Your task to perform on an android device: Go to privacy settings Image 0: 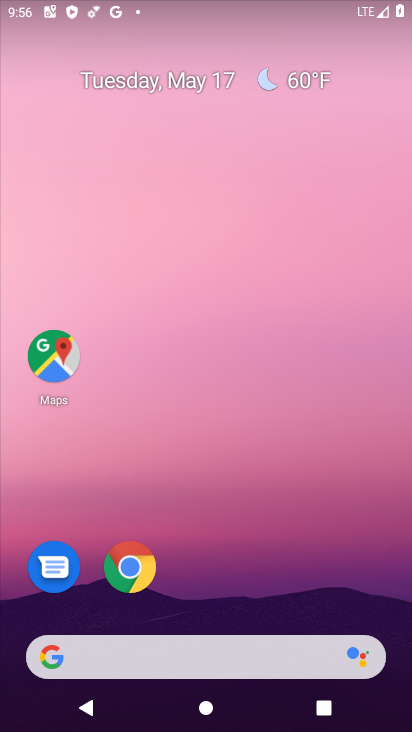
Step 0: drag from (384, 611) to (278, 107)
Your task to perform on an android device: Go to privacy settings Image 1: 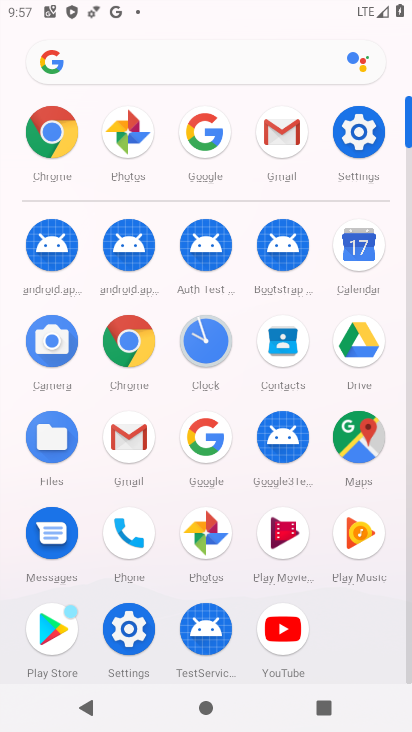
Step 1: click (355, 141)
Your task to perform on an android device: Go to privacy settings Image 2: 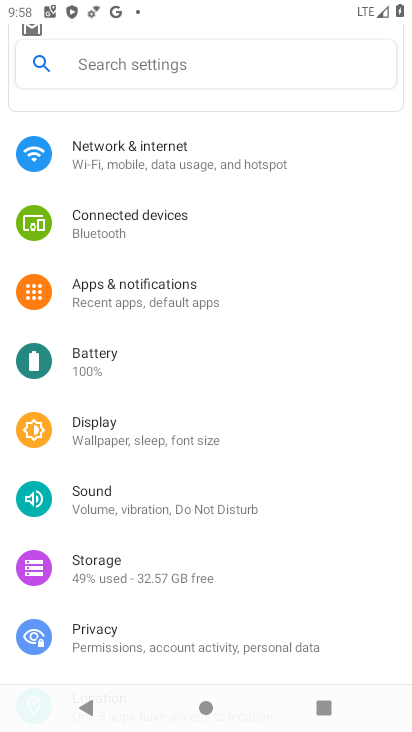
Step 2: click (91, 625)
Your task to perform on an android device: Go to privacy settings Image 3: 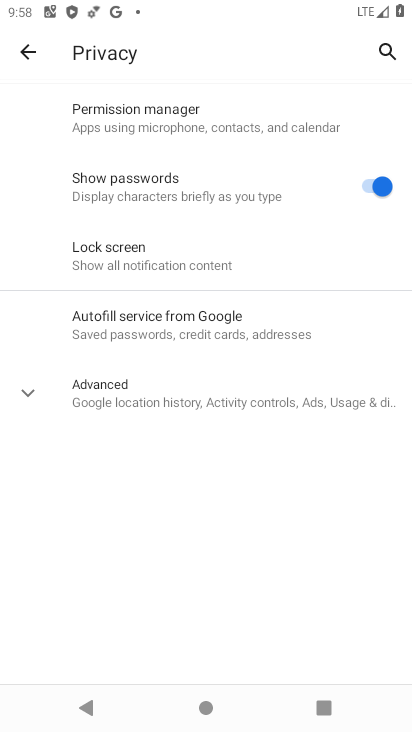
Step 3: task complete